Your task to perform on an android device: turn notification dots on Image 0: 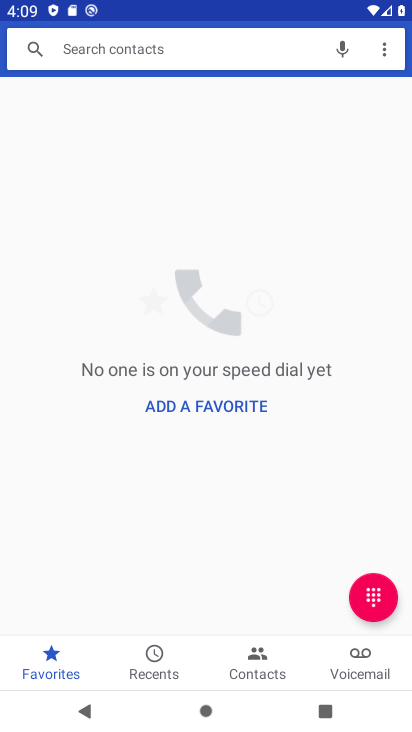
Step 0: press home button
Your task to perform on an android device: turn notification dots on Image 1: 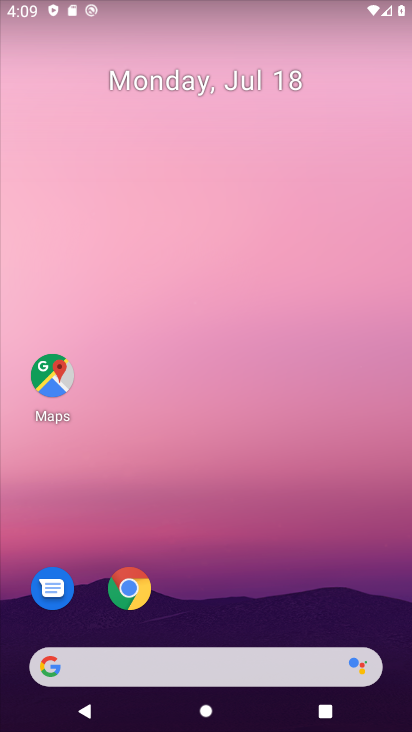
Step 1: drag from (247, 606) to (306, 89)
Your task to perform on an android device: turn notification dots on Image 2: 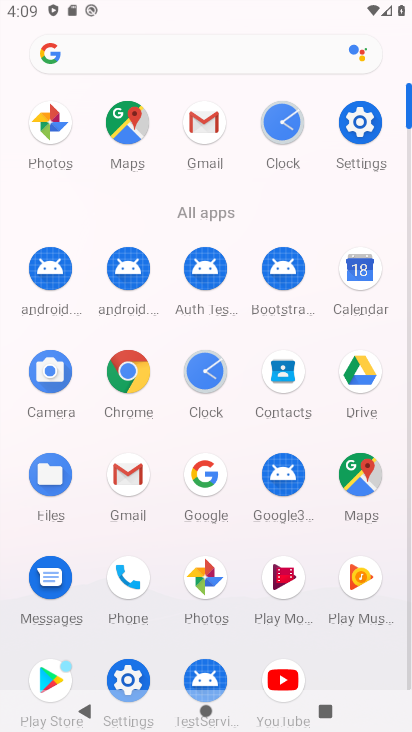
Step 2: click (118, 659)
Your task to perform on an android device: turn notification dots on Image 3: 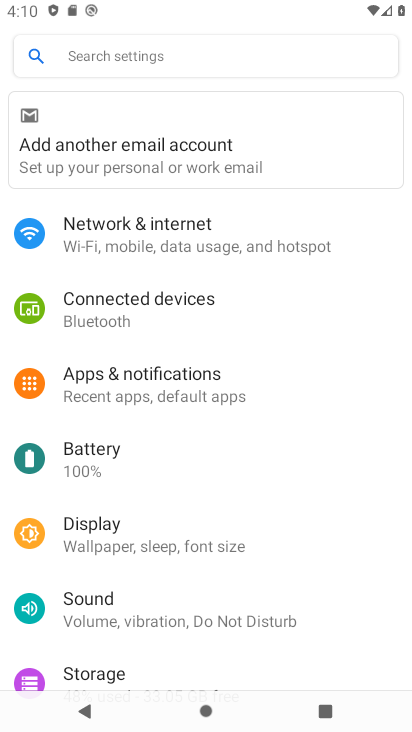
Step 3: click (219, 406)
Your task to perform on an android device: turn notification dots on Image 4: 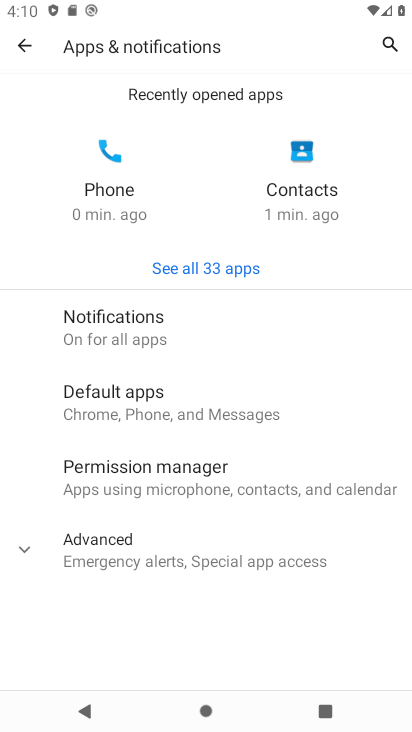
Step 4: click (174, 333)
Your task to perform on an android device: turn notification dots on Image 5: 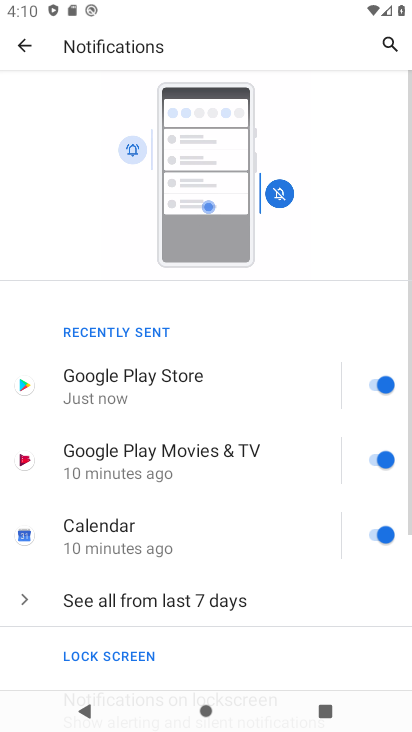
Step 5: drag from (198, 588) to (338, 155)
Your task to perform on an android device: turn notification dots on Image 6: 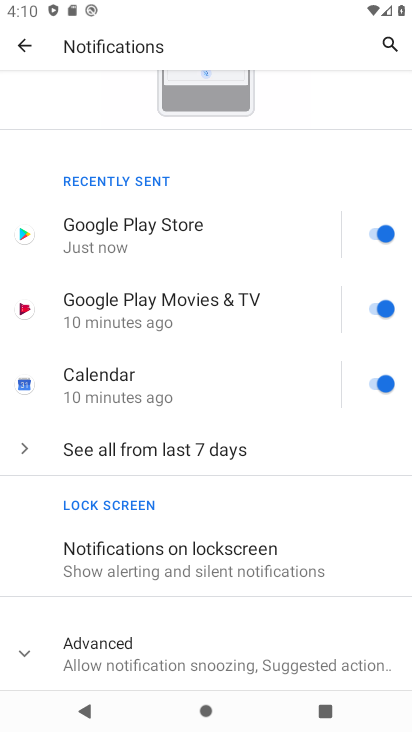
Step 6: click (245, 629)
Your task to perform on an android device: turn notification dots on Image 7: 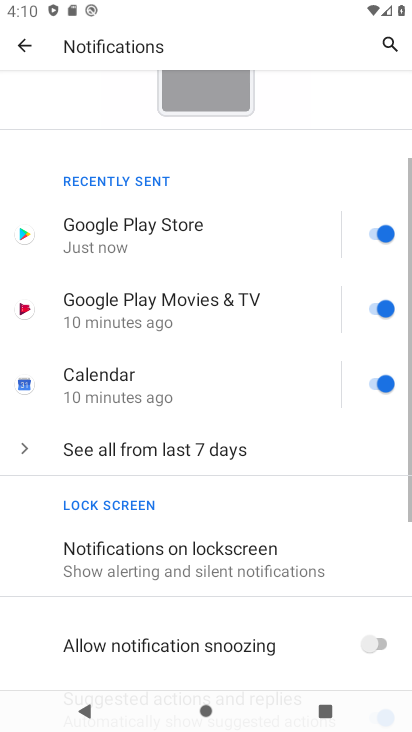
Step 7: task complete